Your task to perform on an android device: install app "Skype" Image 0: 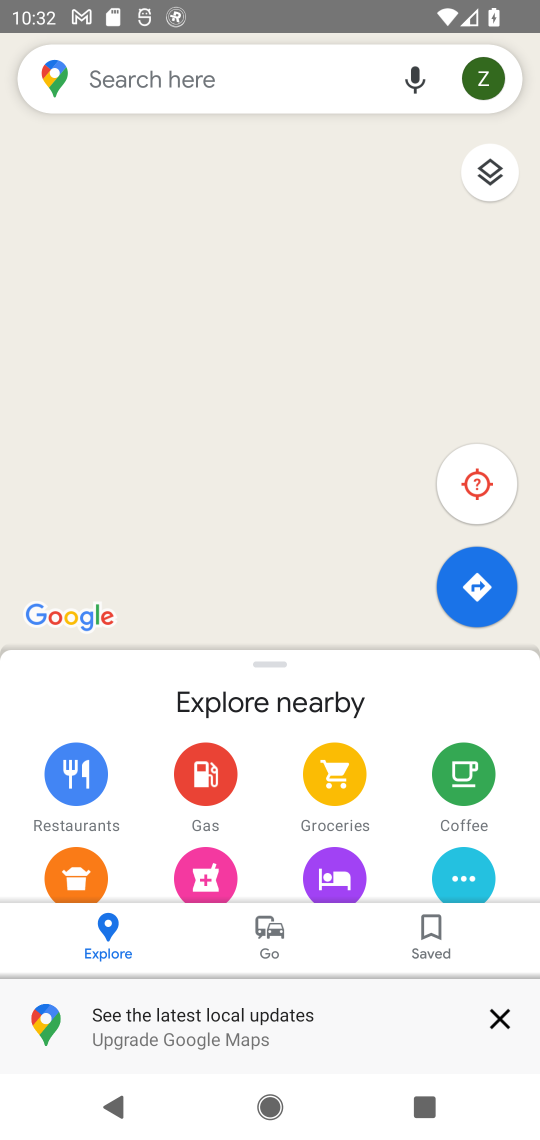
Step 0: press home button
Your task to perform on an android device: install app "Skype" Image 1: 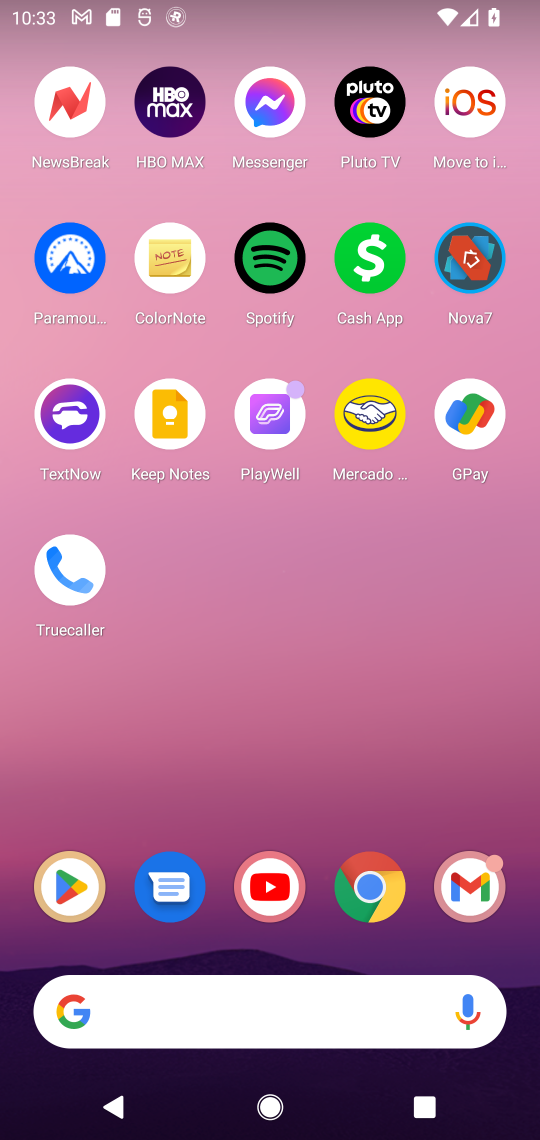
Step 1: click (66, 875)
Your task to perform on an android device: install app "Skype" Image 2: 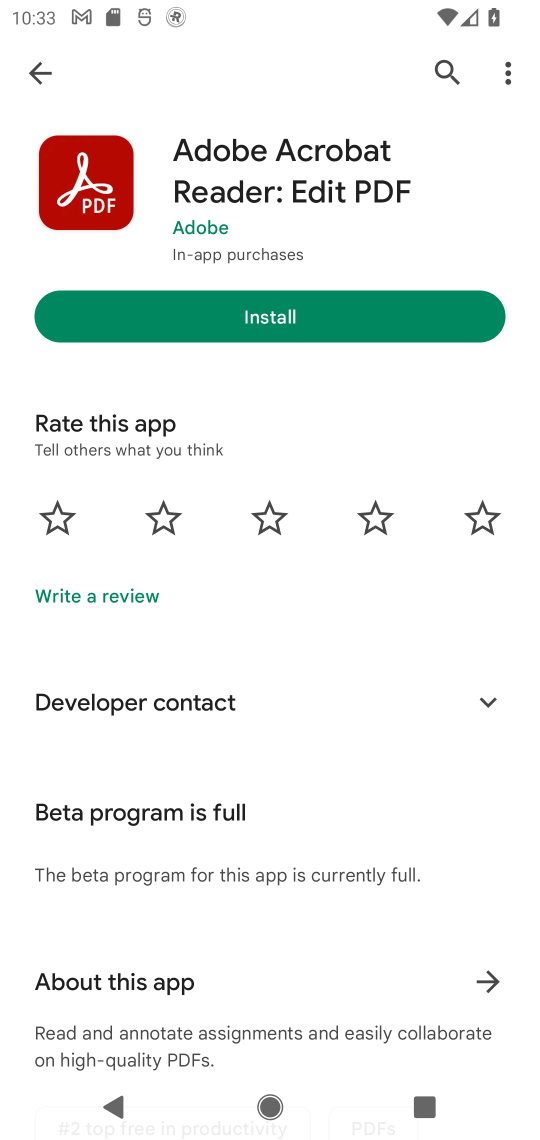
Step 2: click (457, 73)
Your task to perform on an android device: install app "Skype" Image 3: 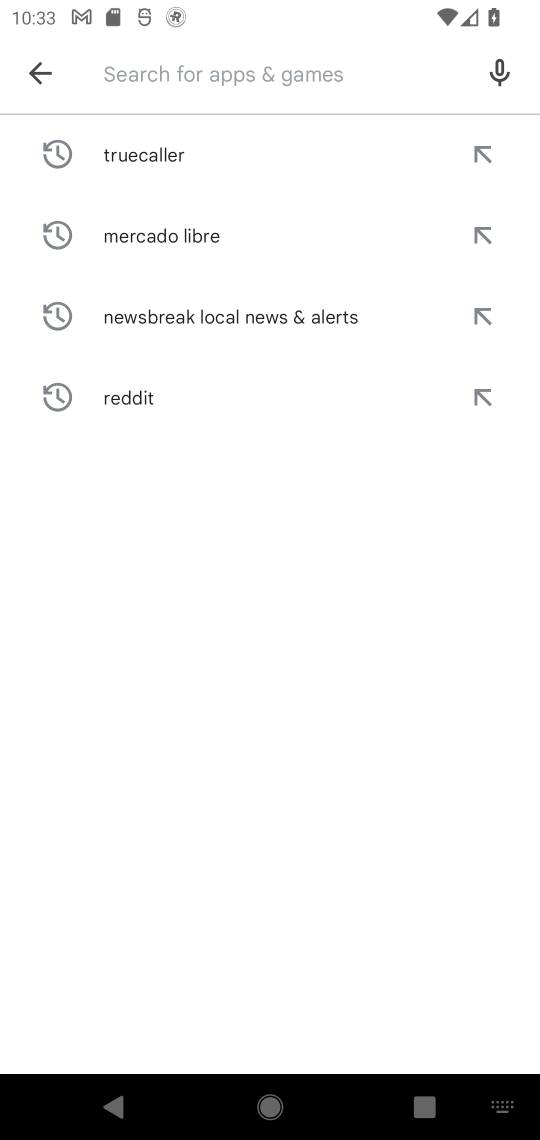
Step 3: type "skype"
Your task to perform on an android device: install app "Skype" Image 4: 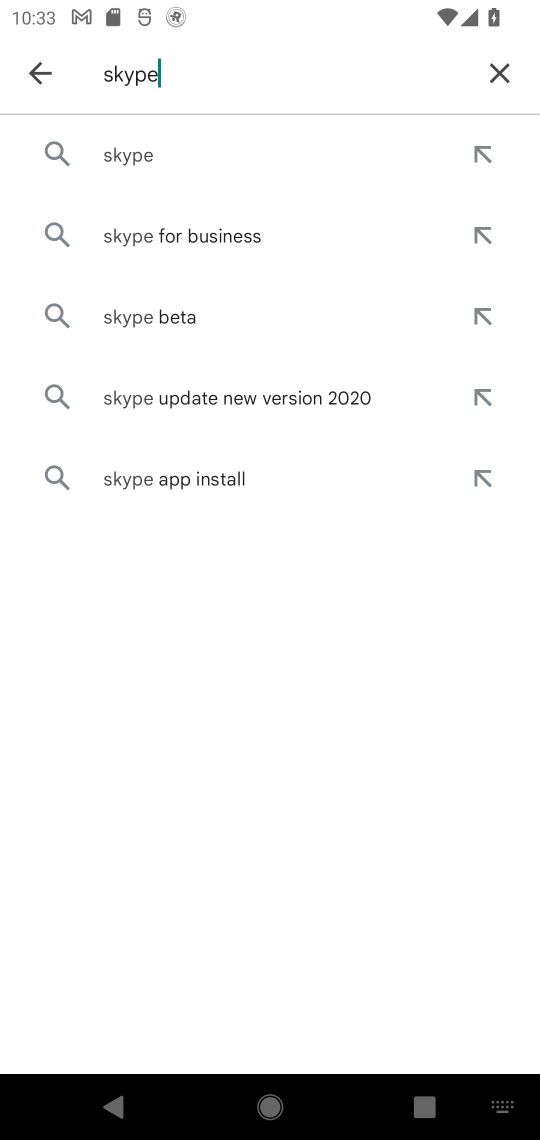
Step 4: click (161, 169)
Your task to perform on an android device: install app "Skype" Image 5: 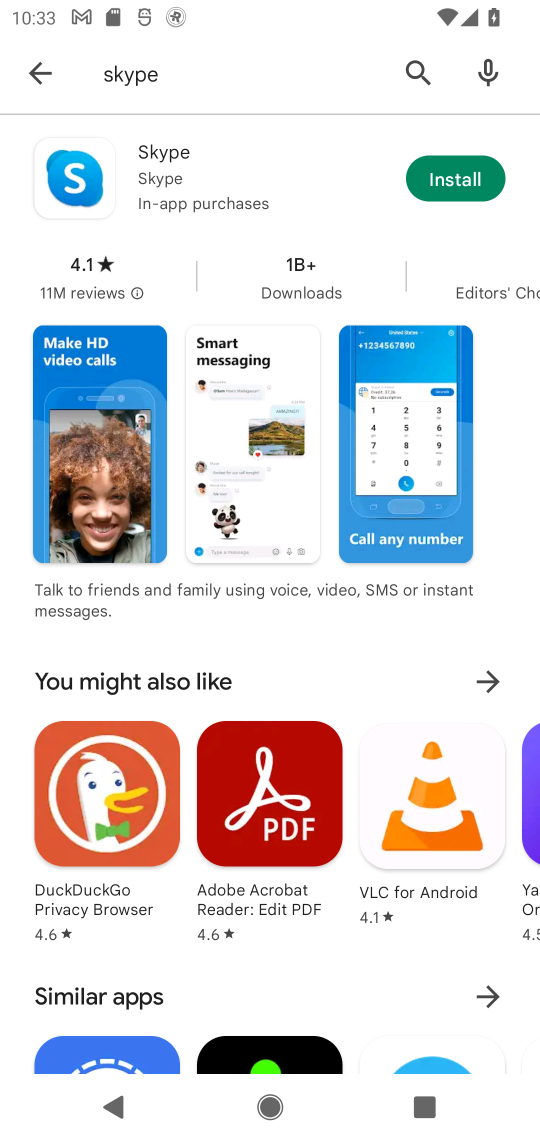
Step 5: click (193, 160)
Your task to perform on an android device: install app "Skype" Image 6: 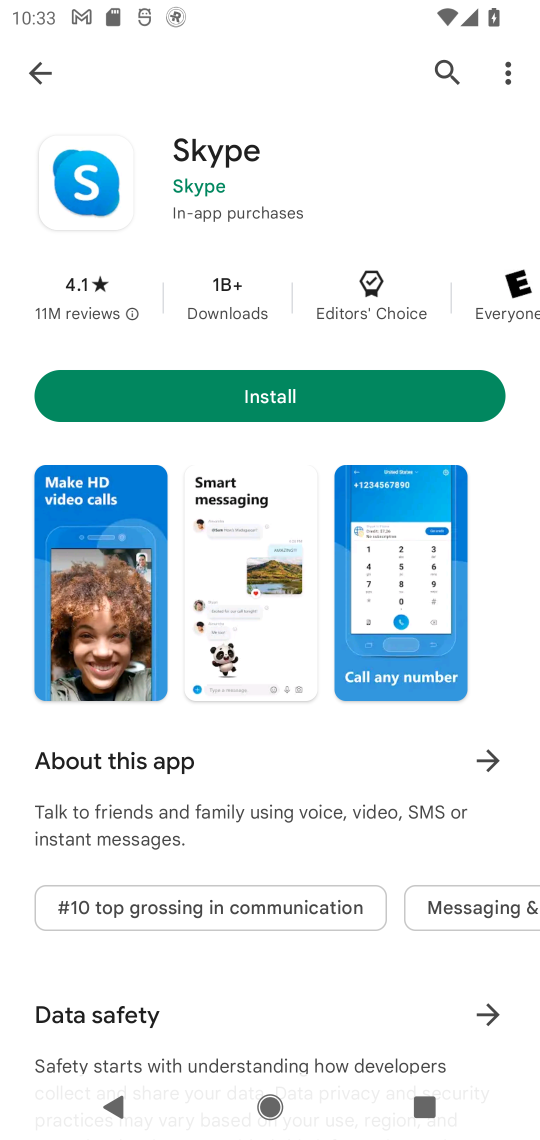
Step 6: click (157, 408)
Your task to perform on an android device: install app "Skype" Image 7: 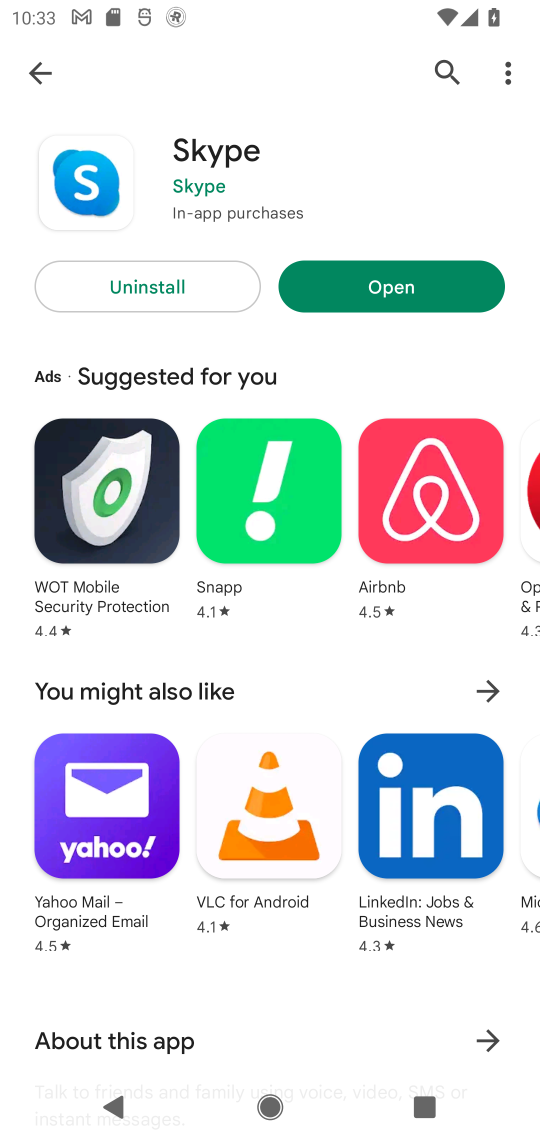
Step 7: task complete